Your task to perform on an android device: Open Google Maps Image 0: 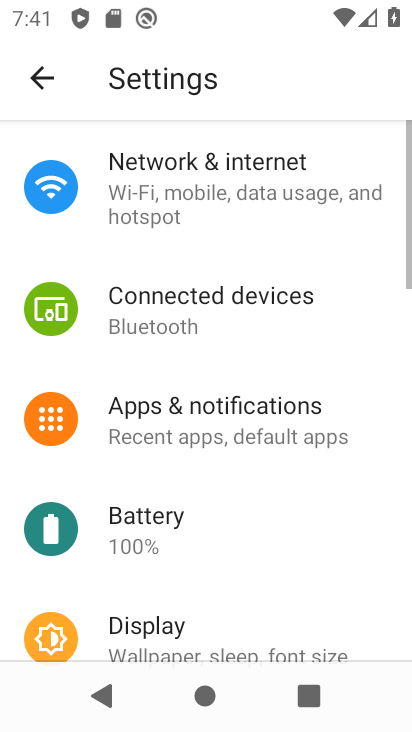
Step 0: press home button
Your task to perform on an android device: Open Google Maps Image 1: 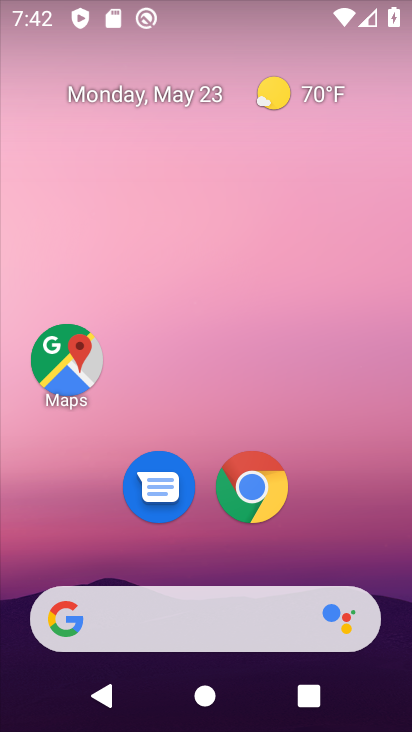
Step 1: click (78, 362)
Your task to perform on an android device: Open Google Maps Image 2: 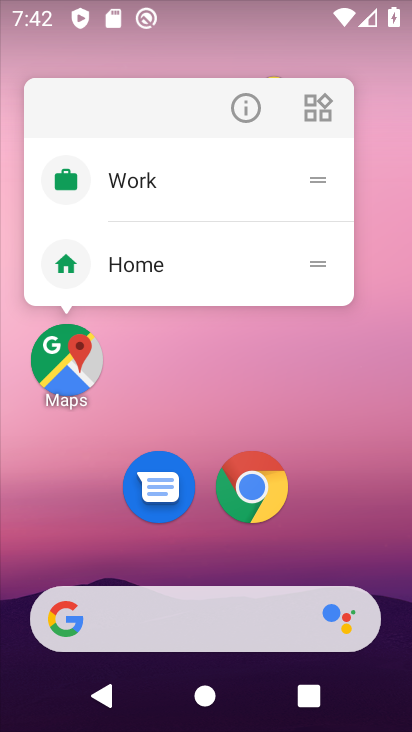
Step 2: click (78, 362)
Your task to perform on an android device: Open Google Maps Image 3: 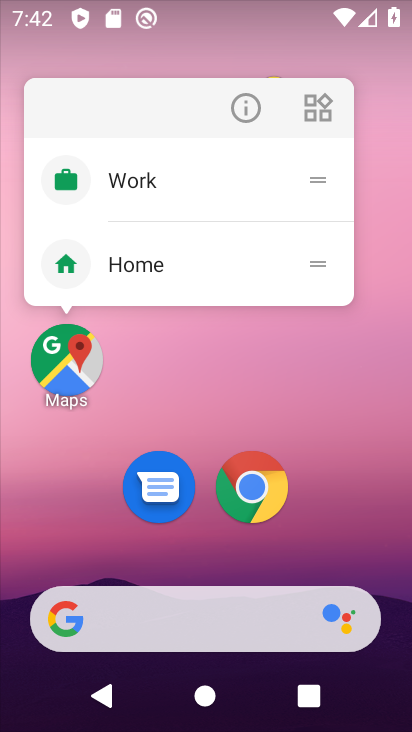
Step 3: click (62, 382)
Your task to perform on an android device: Open Google Maps Image 4: 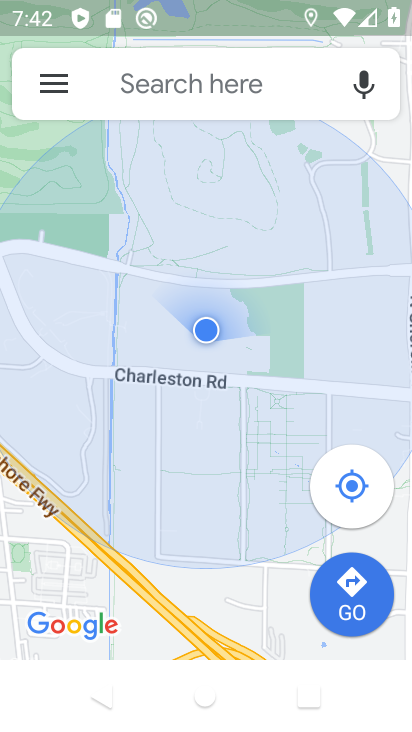
Step 4: task complete